Your task to perform on an android device: Check the settings for the Google Play Movies app Image 0: 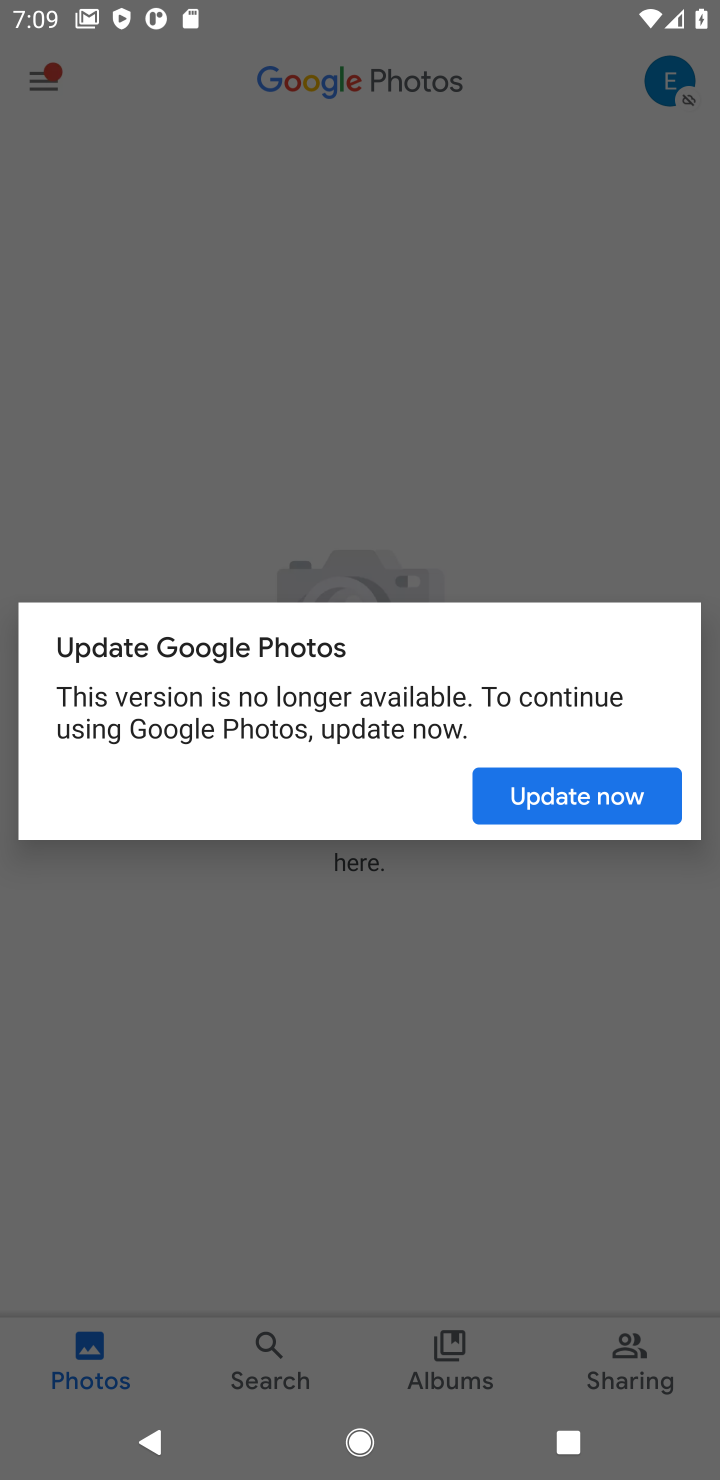
Step 0: press home button
Your task to perform on an android device: Check the settings for the Google Play Movies app Image 1: 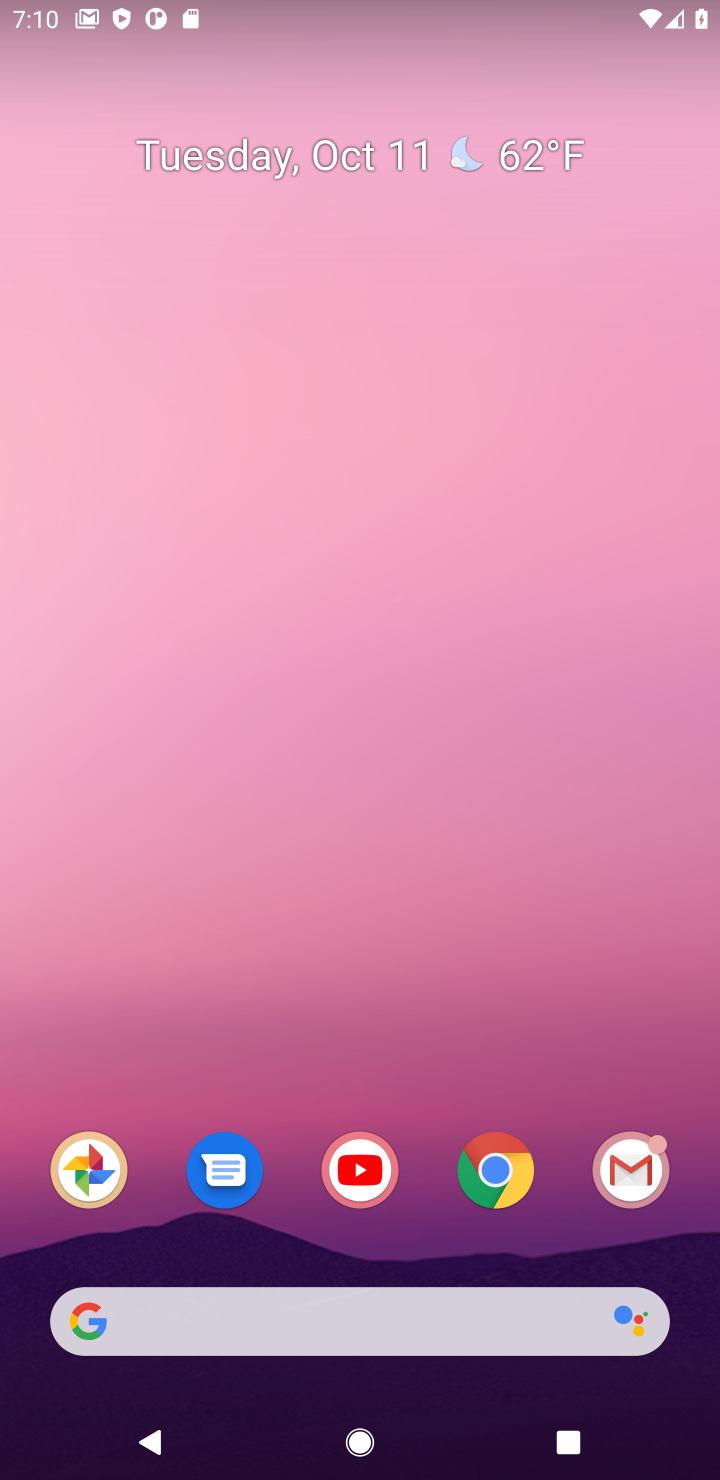
Step 1: drag from (357, 1063) to (369, 471)
Your task to perform on an android device: Check the settings for the Google Play Movies app Image 2: 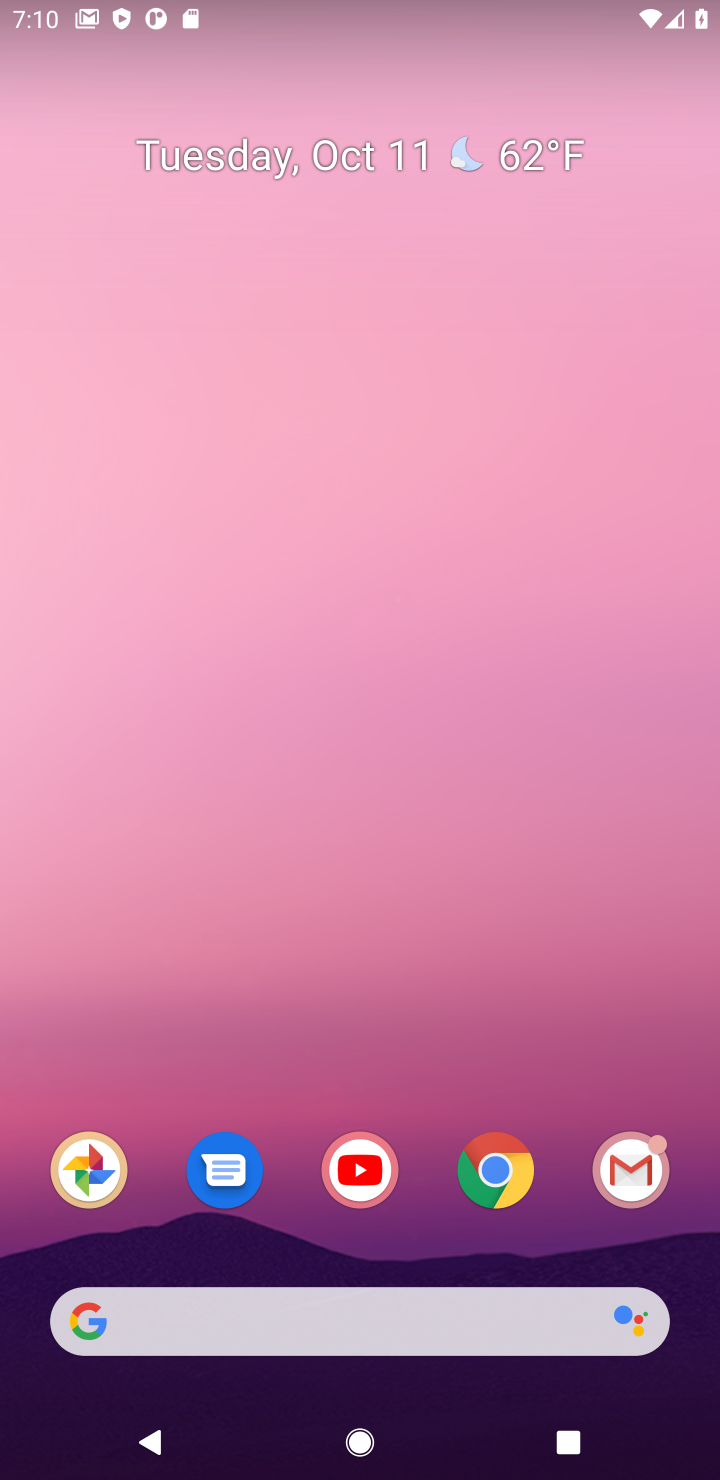
Step 2: drag from (371, 984) to (355, 309)
Your task to perform on an android device: Check the settings for the Google Play Movies app Image 3: 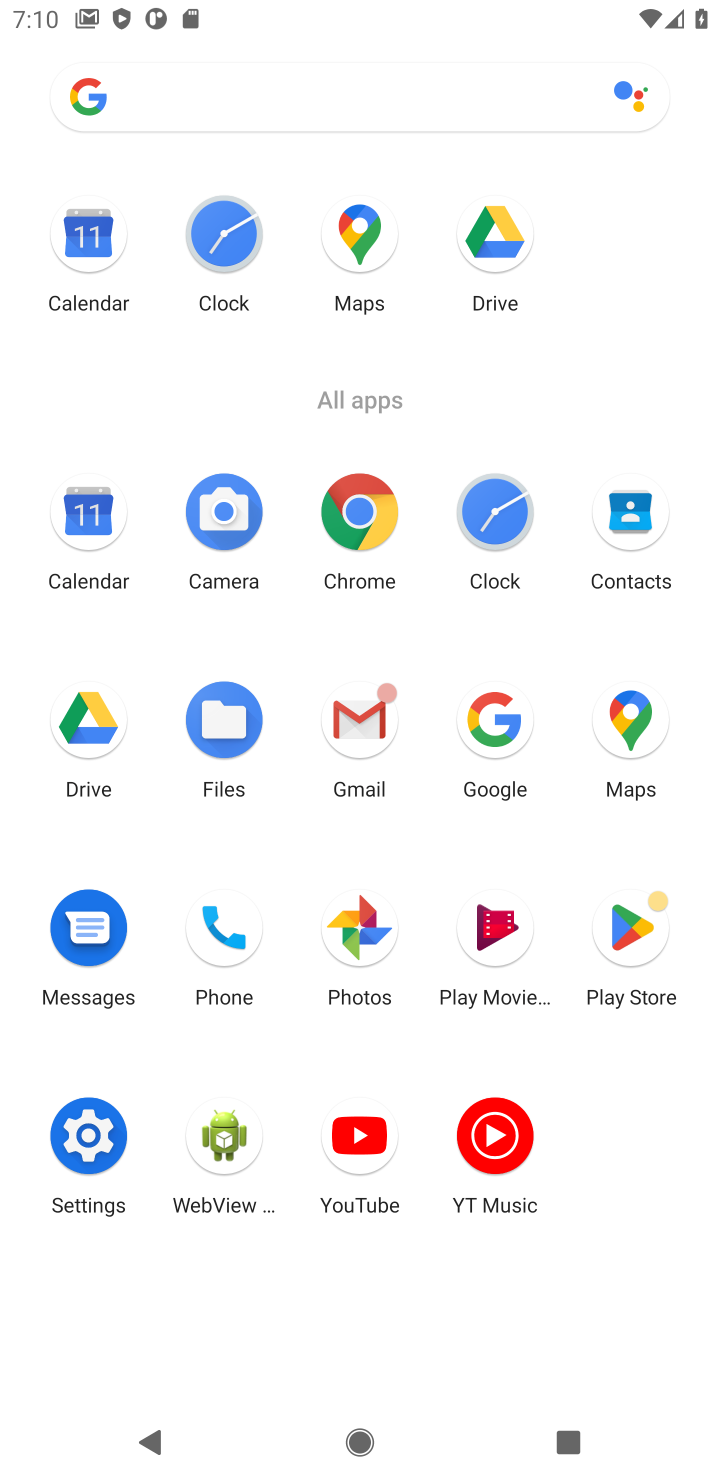
Step 3: click (610, 920)
Your task to perform on an android device: Check the settings for the Google Play Movies app Image 4: 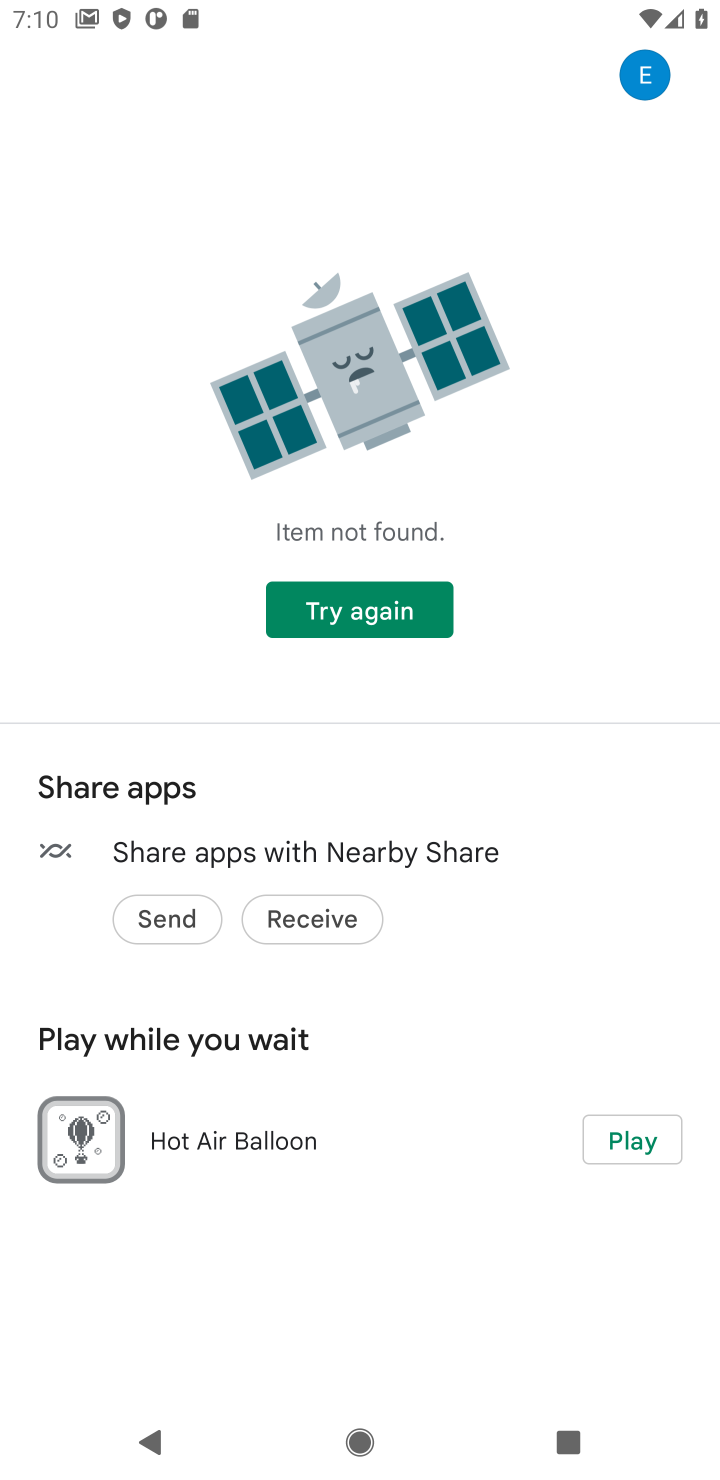
Step 4: task complete